Your task to perform on an android device: Go to notification settings Image 0: 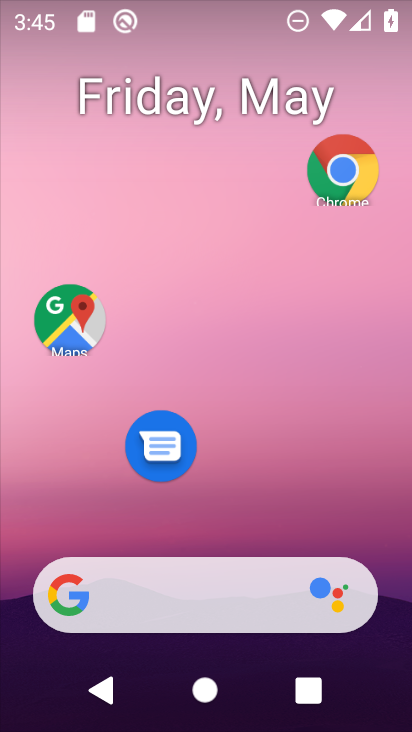
Step 0: drag from (237, 503) to (229, 48)
Your task to perform on an android device: Go to notification settings Image 1: 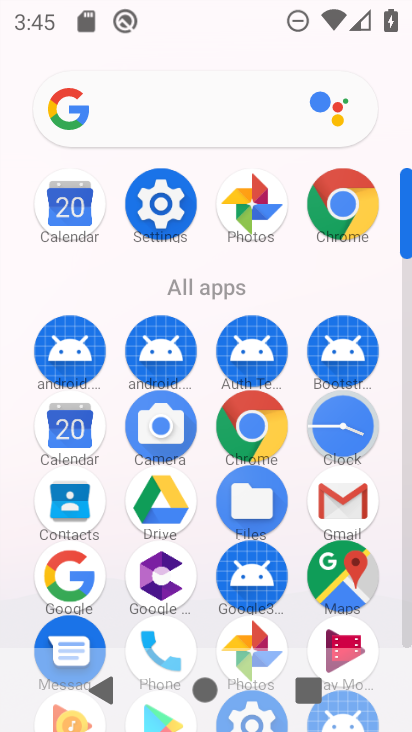
Step 1: click (158, 193)
Your task to perform on an android device: Go to notification settings Image 2: 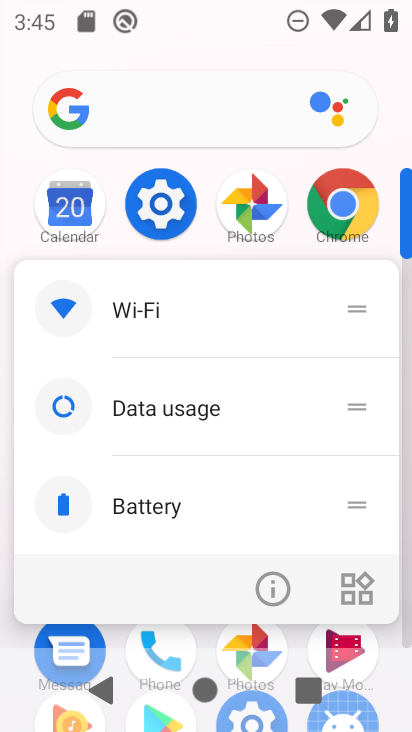
Step 2: click (171, 198)
Your task to perform on an android device: Go to notification settings Image 3: 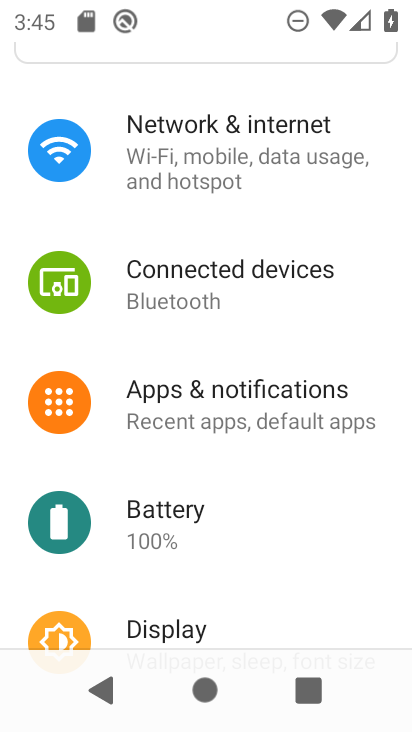
Step 3: click (212, 404)
Your task to perform on an android device: Go to notification settings Image 4: 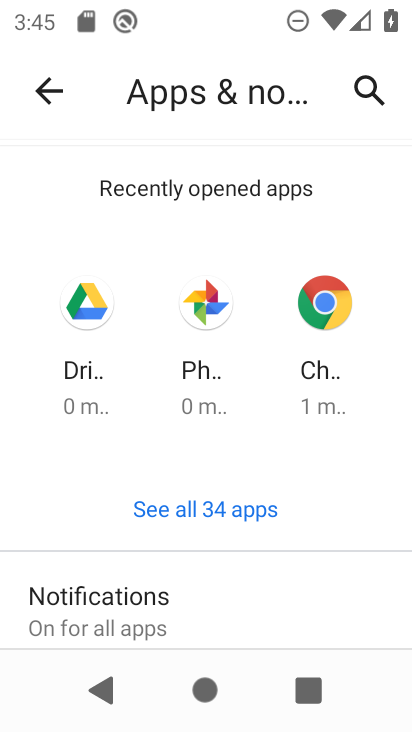
Step 4: drag from (223, 624) to (328, 274)
Your task to perform on an android device: Go to notification settings Image 5: 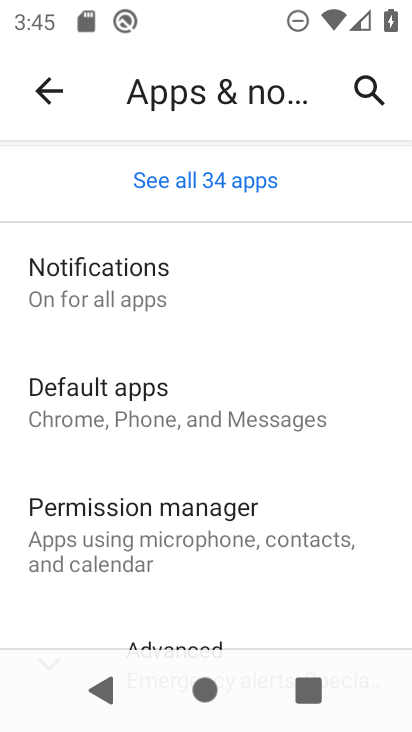
Step 5: click (141, 301)
Your task to perform on an android device: Go to notification settings Image 6: 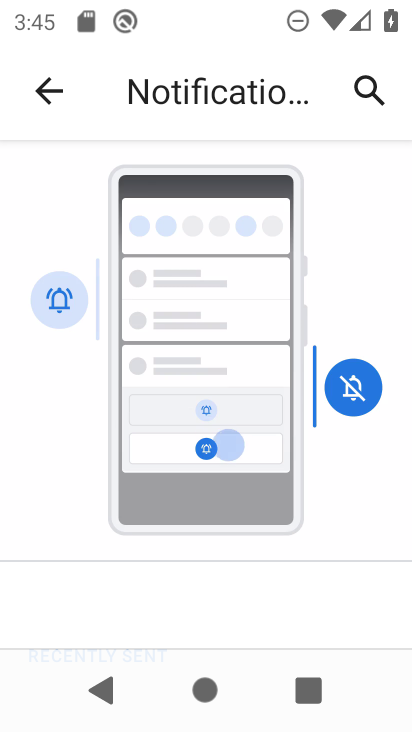
Step 6: task complete